Your task to perform on an android device: check google app version Image 0: 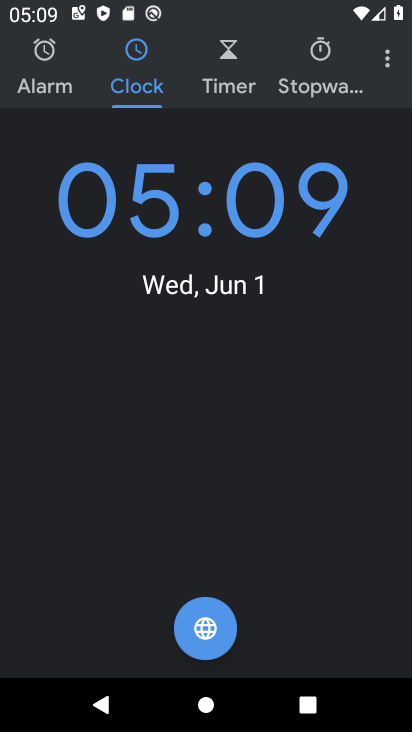
Step 0: press home button
Your task to perform on an android device: check google app version Image 1: 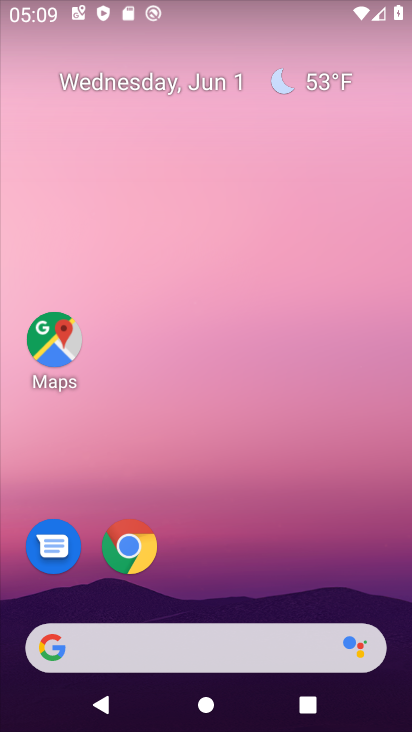
Step 1: click (205, 0)
Your task to perform on an android device: check google app version Image 2: 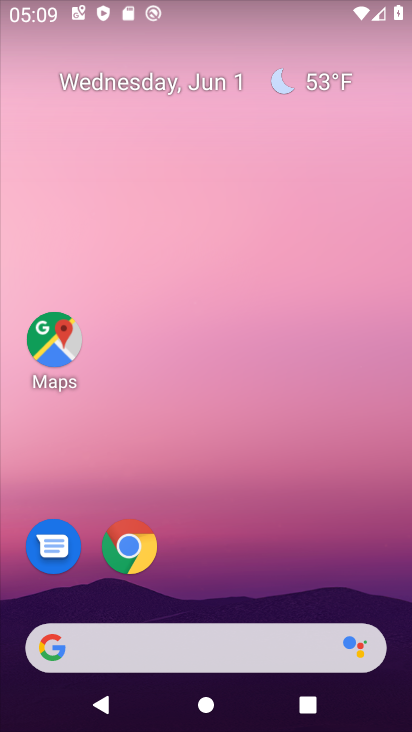
Step 2: drag from (230, 535) to (201, 174)
Your task to perform on an android device: check google app version Image 3: 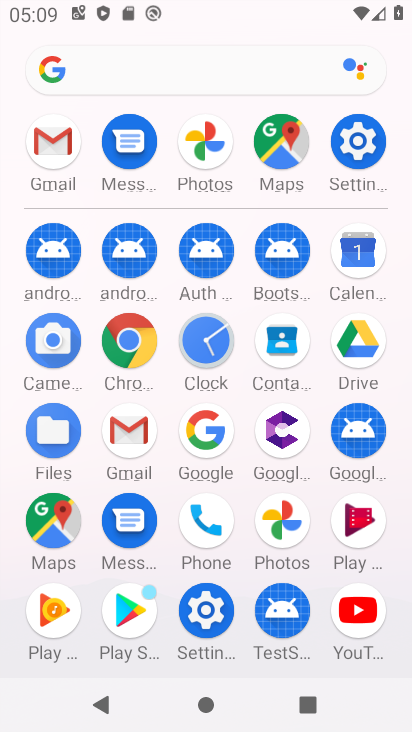
Step 3: click (197, 444)
Your task to perform on an android device: check google app version Image 4: 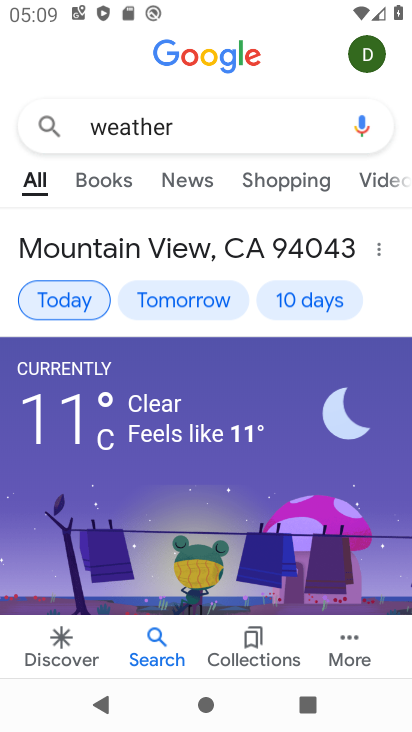
Step 4: click (354, 643)
Your task to perform on an android device: check google app version Image 5: 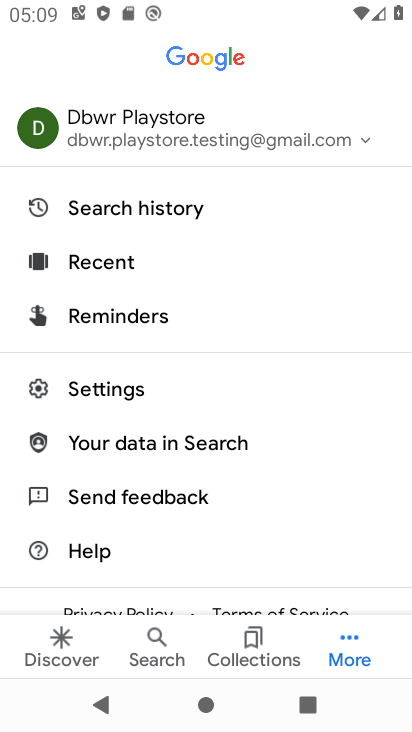
Step 5: click (101, 384)
Your task to perform on an android device: check google app version Image 6: 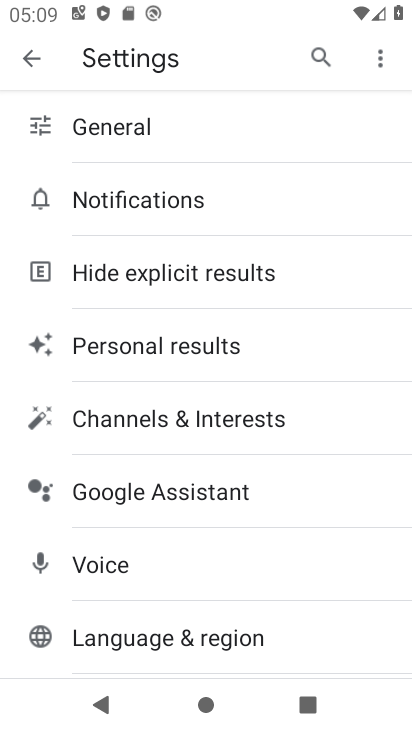
Step 6: drag from (145, 558) to (143, 279)
Your task to perform on an android device: check google app version Image 7: 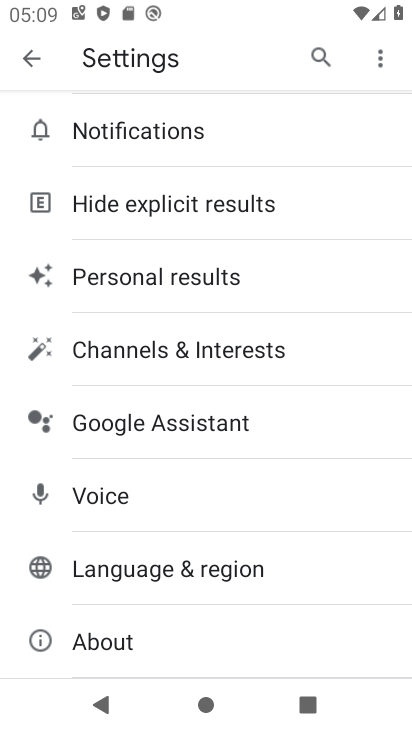
Step 7: click (122, 630)
Your task to perform on an android device: check google app version Image 8: 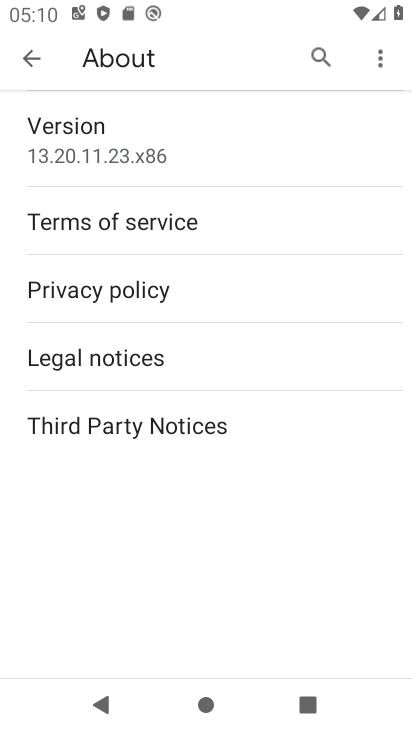
Step 8: task complete